Your task to perform on an android device: Go to settings Image 0: 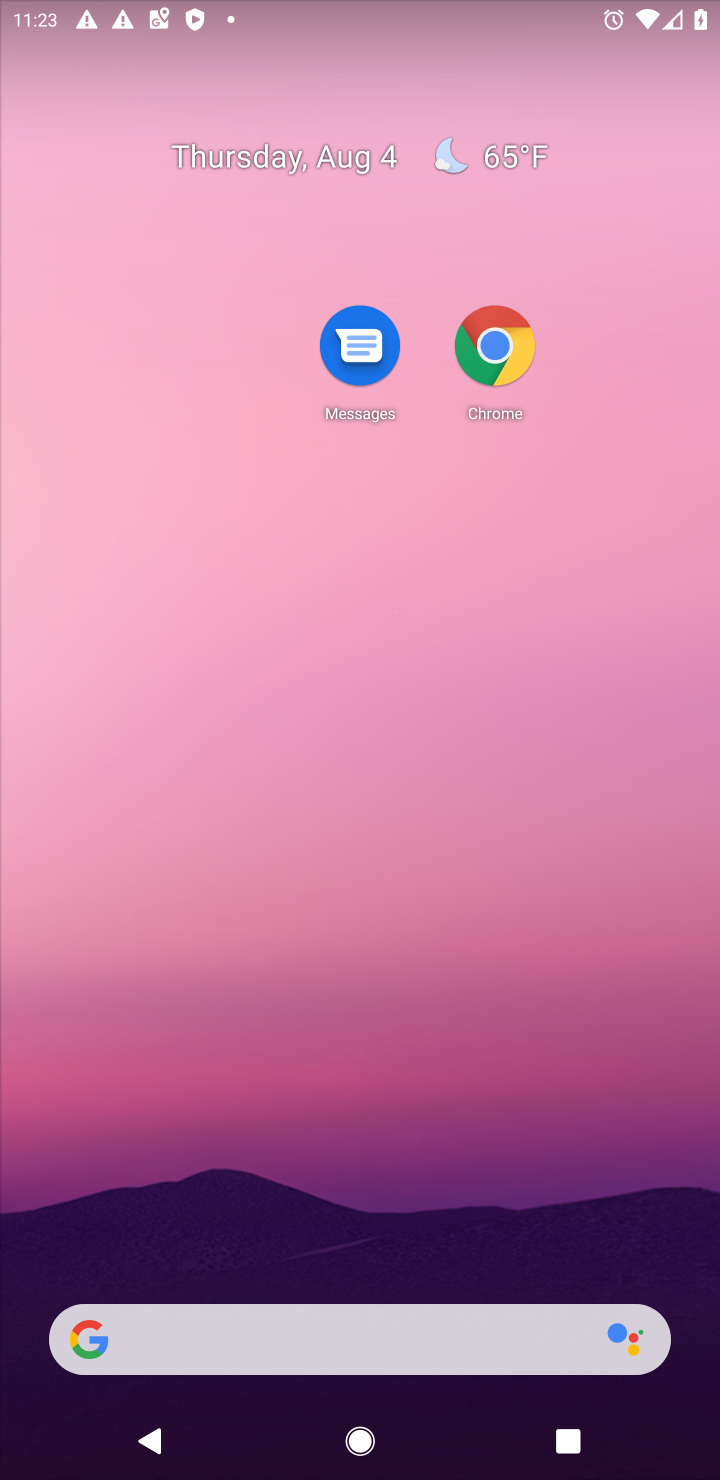
Step 0: drag from (317, 1268) to (343, 150)
Your task to perform on an android device: Go to settings Image 1: 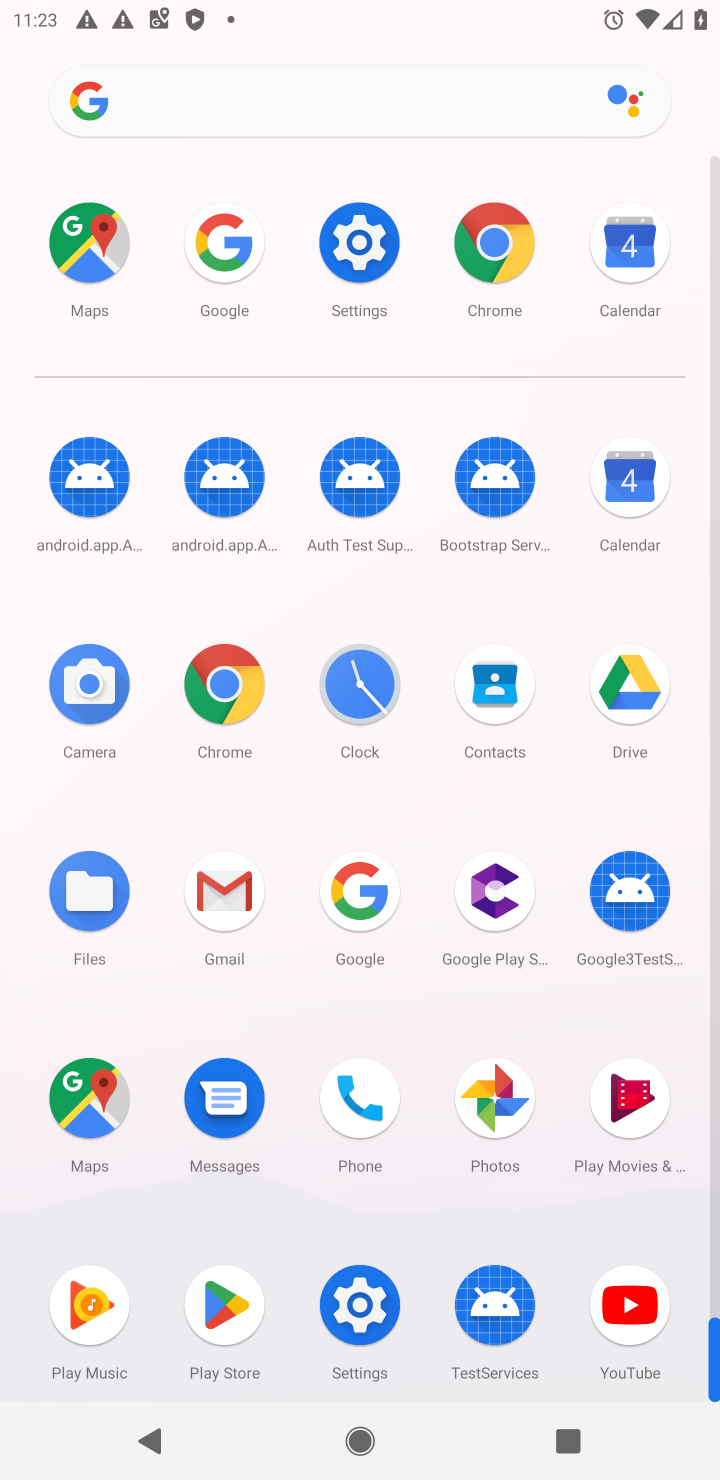
Step 1: click (354, 249)
Your task to perform on an android device: Go to settings Image 2: 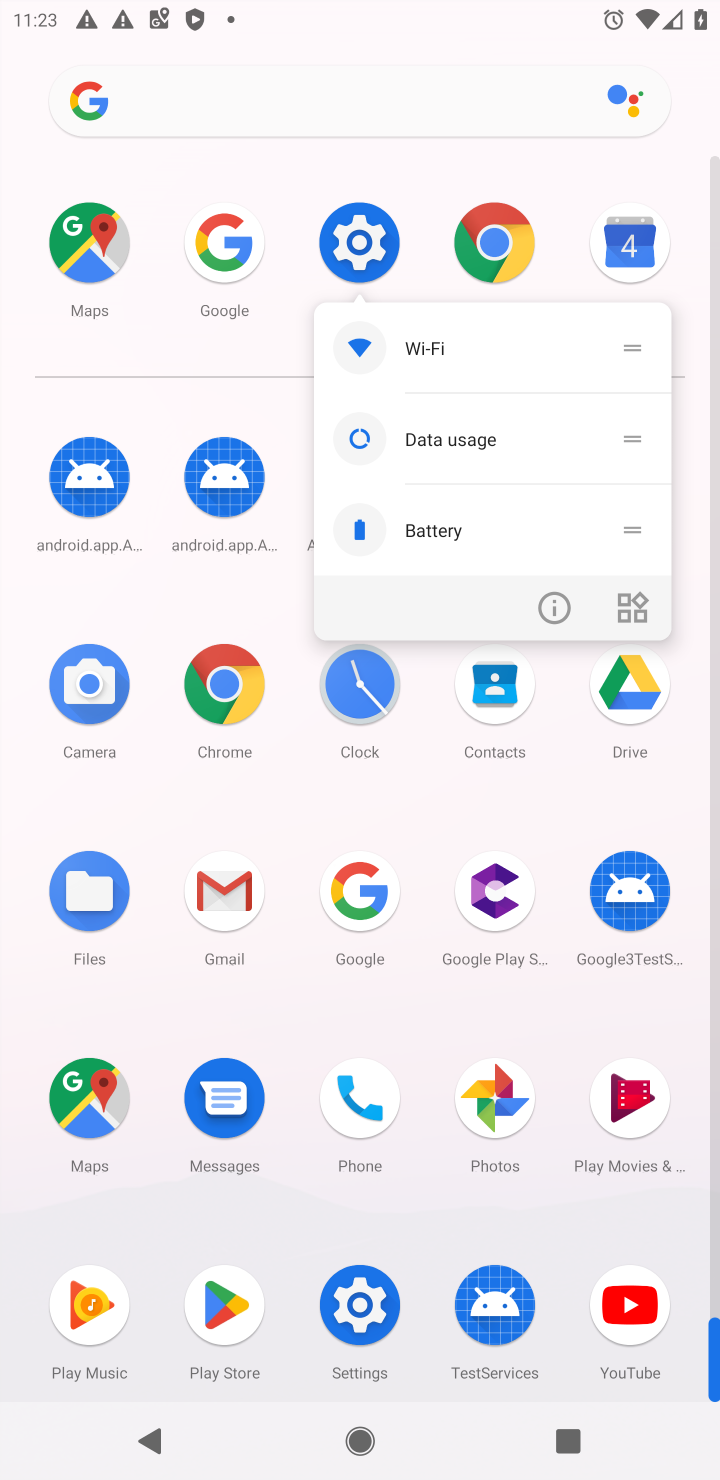
Step 2: click (354, 224)
Your task to perform on an android device: Go to settings Image 3: 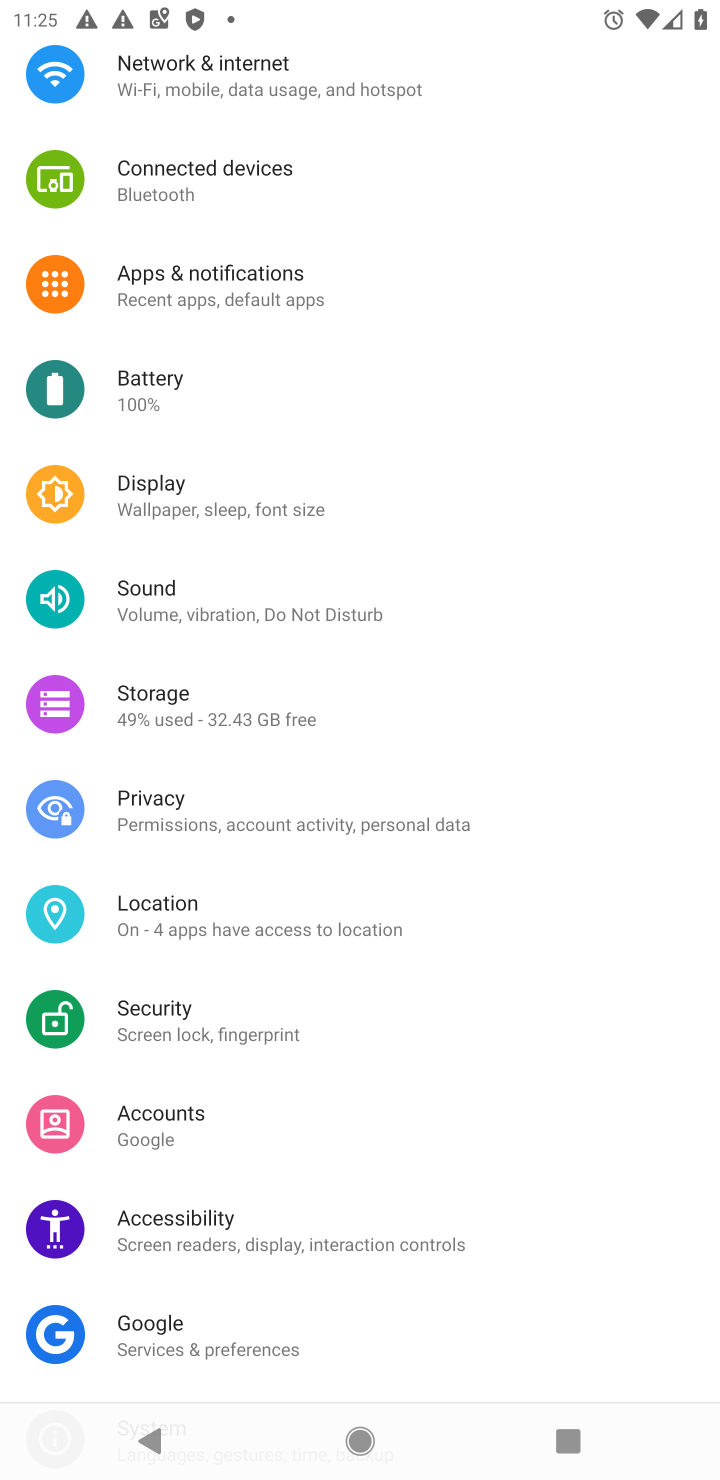
Step 3: task complete